Your task to perform on an android device: Open my contact list Image 0: 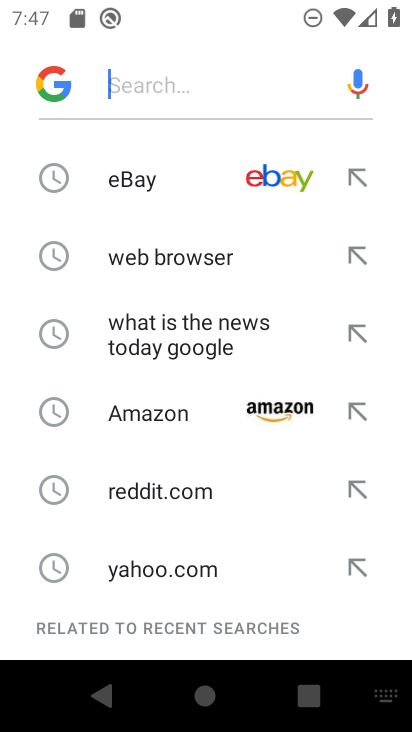
Step 0: press home button
Your task to perform on an android device: Open my contact list Image 1: 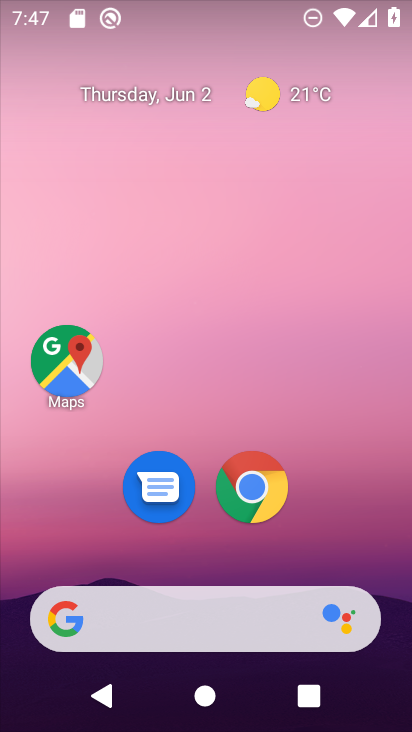
Step 1: drag from (185, 559) to (182, 139)
Your task to perform on an android device: Open my contact list Image 2: 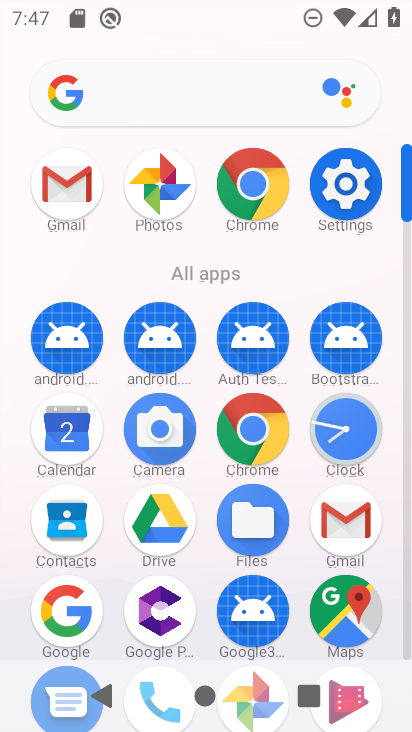
Step 2: click (70, 530)
Your task to perform on an android device: Open my contact list Image 3: 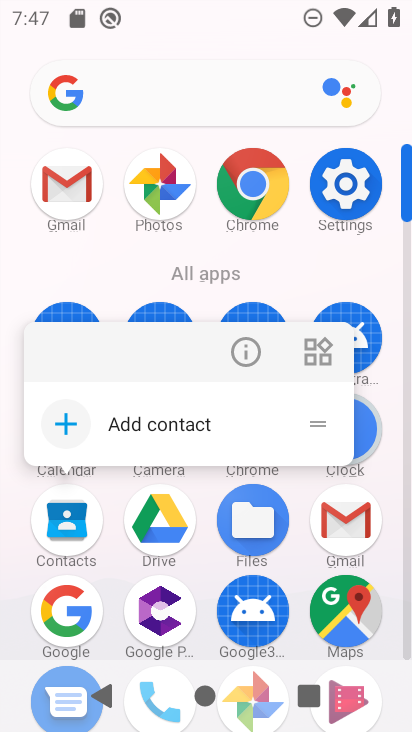
Step 3: click (66, 519)
Your task to perform on an android device: Open my contact list Image 4: 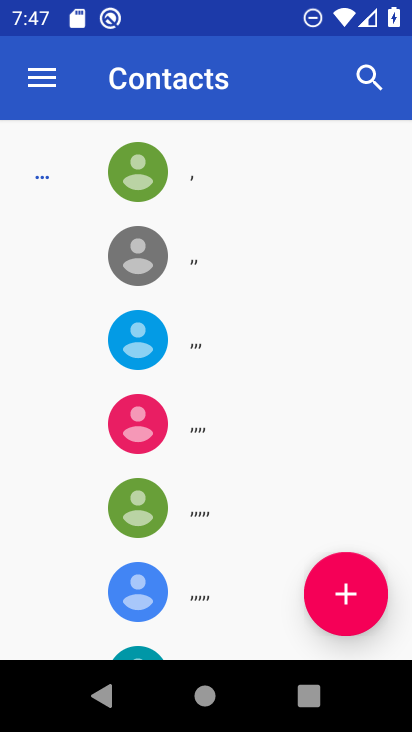
Step 4: task complete